Your task to perform on an android device: Open the calendar and show me this week's events? Image 0: 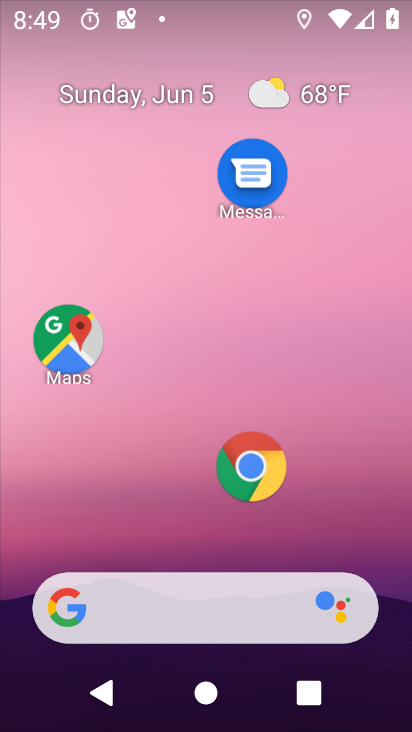
Step 0: drag from (214, 548) to (20, 1)
Your task to perform on an android device: Open the calendar and show me this week's events? Image 1: 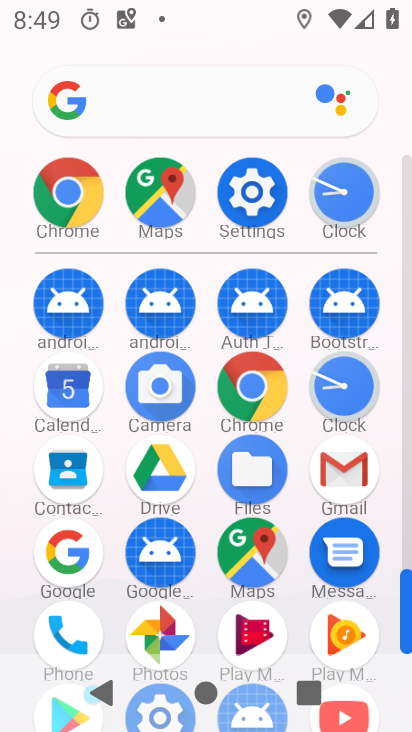
Step 1: click (51, 395)
Your task to perform on an android device: Open the calendar and show me this week's events? Image 2: 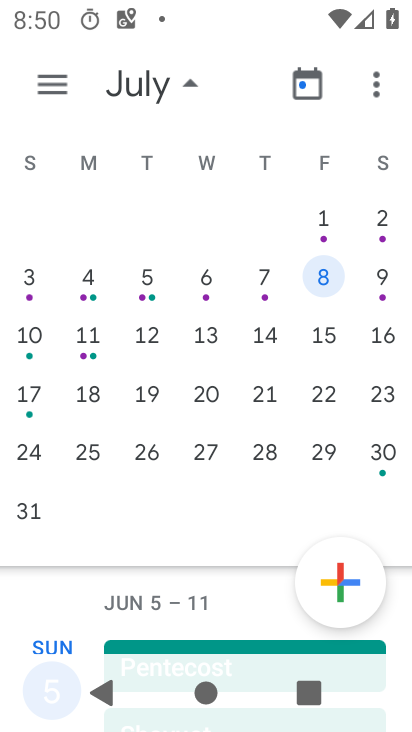
Step 2: drag from (28, 312) to (407, 278)
Your task to perform on an android device: Open the calendar and show me this week's events? Image 3: 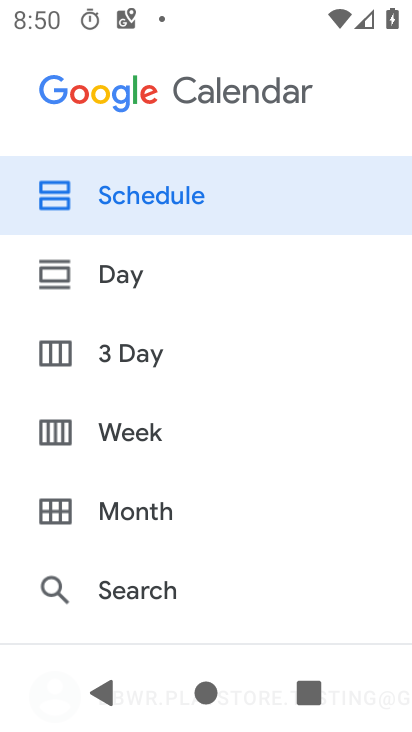
Step 3: press back button
Your task to perform on an android device: Open the calendar and show me this week's events? Image 4: 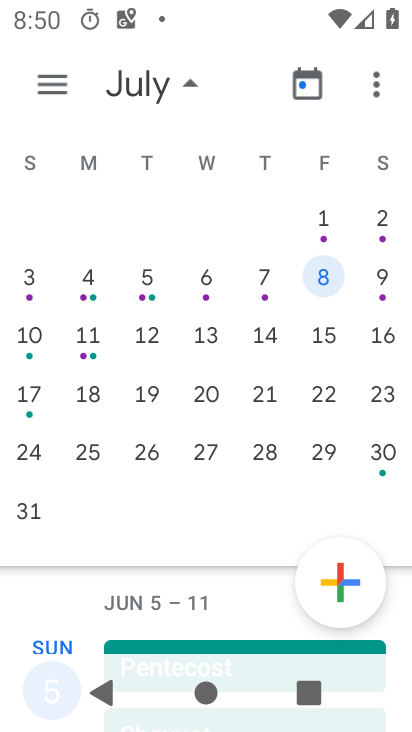
Step 4: drag from (34, 452) to (409, 273)
Your task to perform on an android device: Open the calendar and show me this week's events? Image 5: 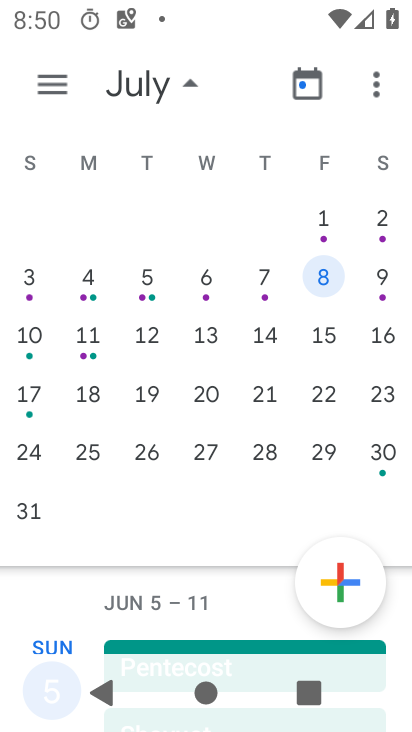
Step 5: drag from (38, 286) to (411, 422)
Your task to perform on an android device: Open the calendar and show me this week's events? Image 6: 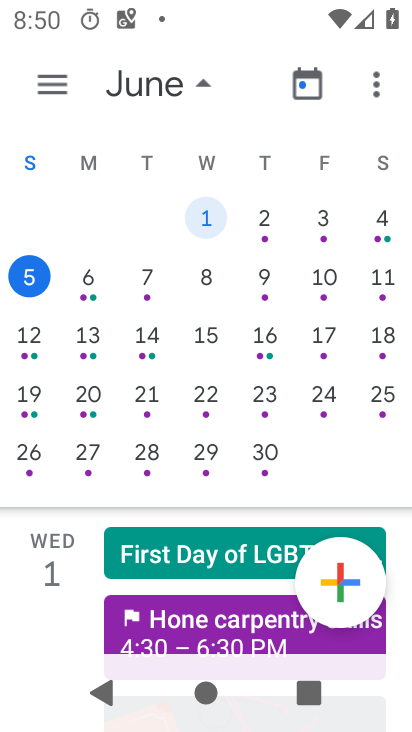
Step 6: click (268, 281)
Your task to perform on an android device: Open the calendar and show me this week's events? Image 7: 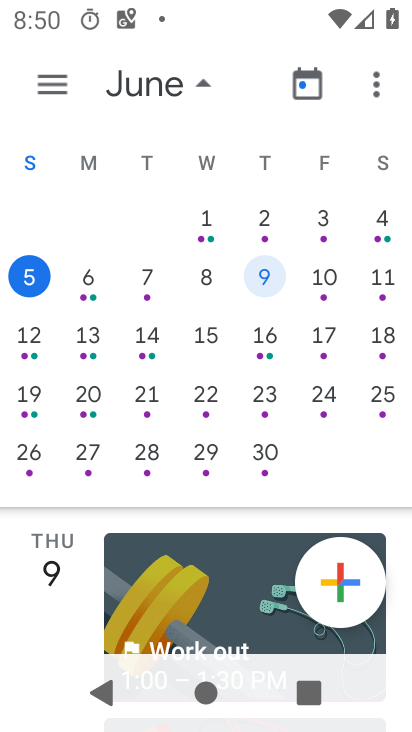
Step 7: task complete